Your task to perform on an android device: Open eBay Image 0: 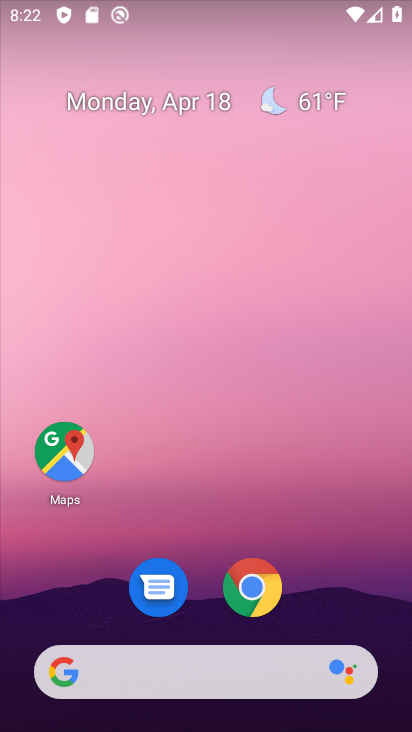
Step 0: drag from (210, 719) to (229, 101)
Your task to perform on an android device: Open eBay Image 1: 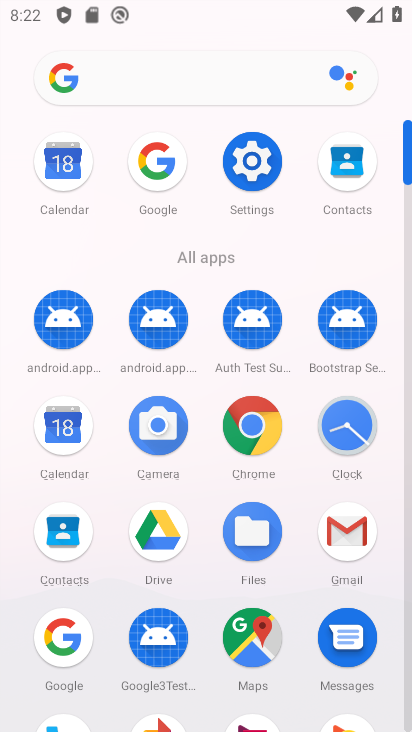
Step 1: click (250, 426)
Your task to perform on an android device: Open eBay Image 2: 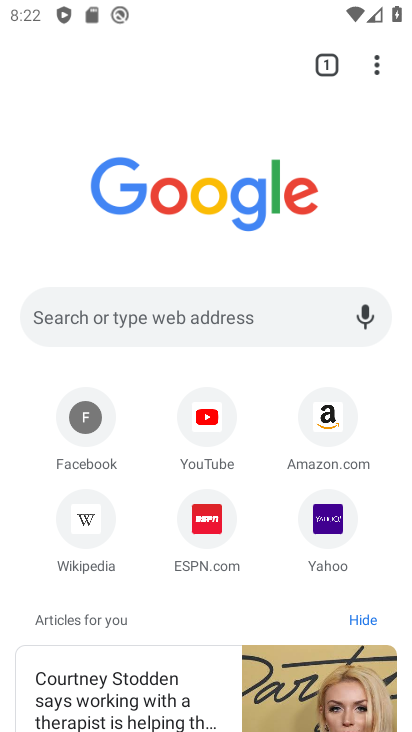
Step 2: click (209, 311)
Your task to perform on an android device: Open eBay Image 3: 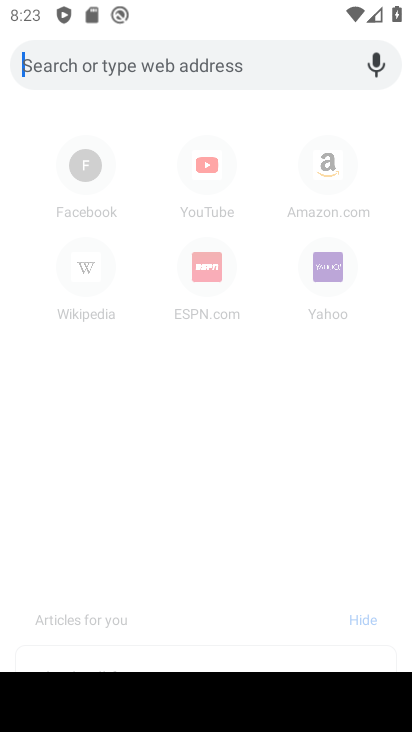
Step 3: type "eBay"
Your task to perform on an android device: Open eBay Image 4: 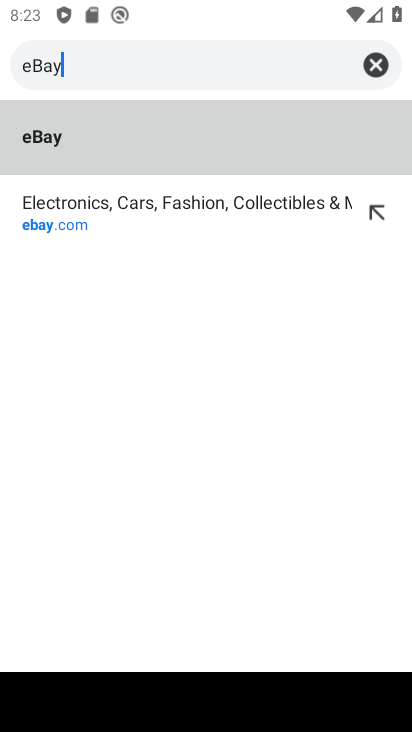
Step 4: click (53, 132)
Your task to perform on an android device: Open eBay Image 5: 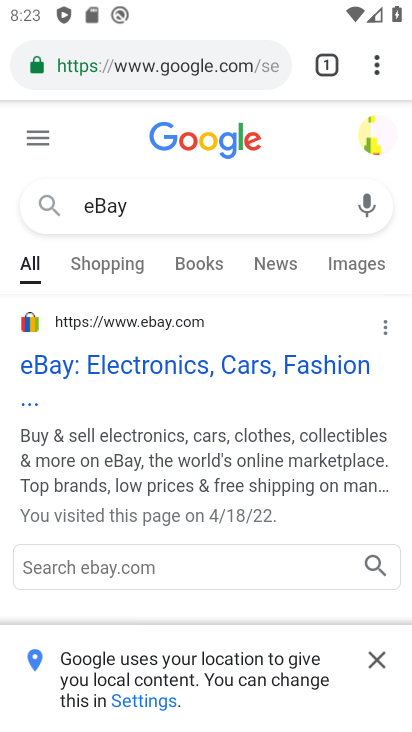
Step 5: click (239, 363)
Your task to perform on an android device: Open eBay Image 6: 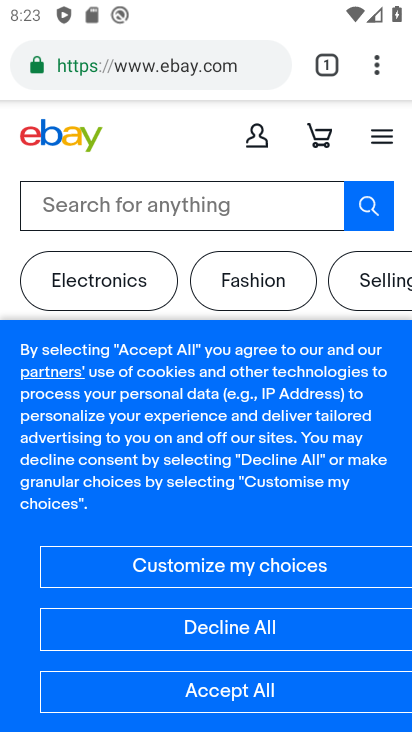
Step 6: task complete